Your task to perform on an android device: toggle translation in the chrome app Image 0: 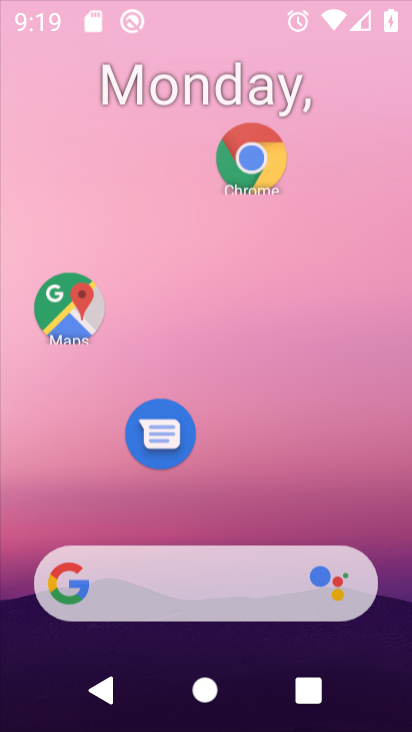
Step 0: press home button
Your task to perform on an android device: toggle translation in the chrome app Image 1: 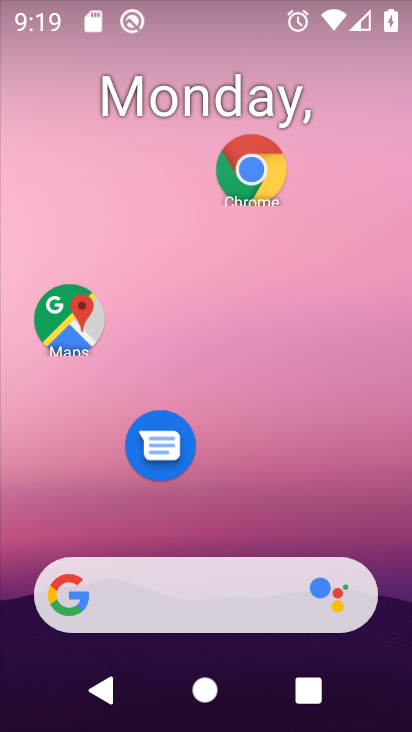
Step 1: click (248, 162)
Your task to perform on an android device: toggle translation in the chrome app Image 2: 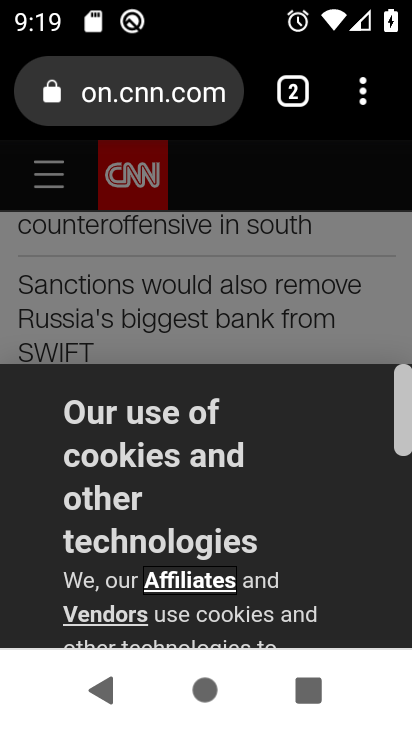
Step 2: click (361, 92)
Your task to perform on an android device: toggle translation in the chrome app Image 3: 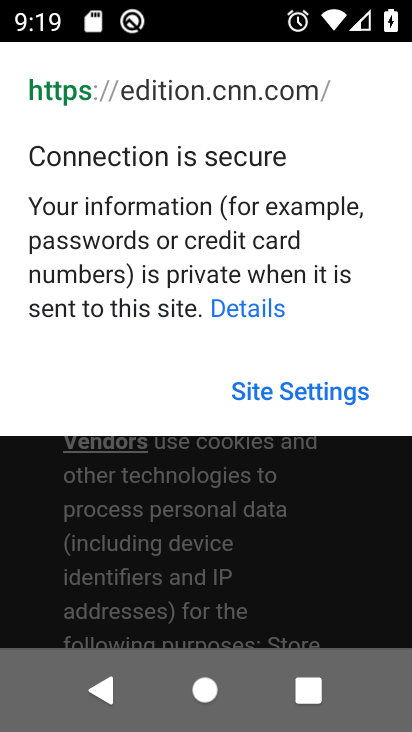
Step 3: click (205, 532)
Your task to perform on an android device: toggle translation in the chrome app Image 4: 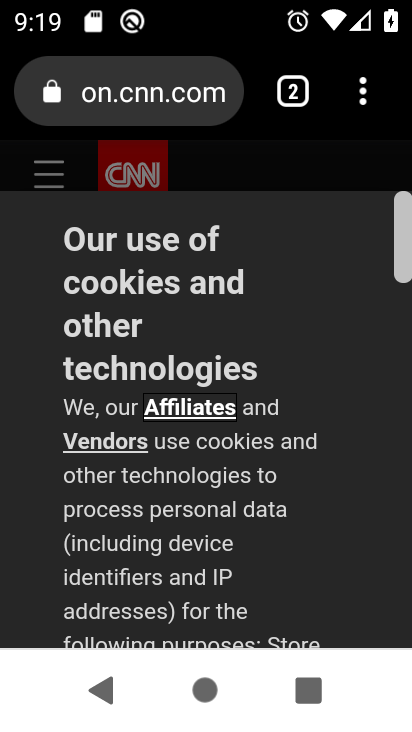
Step 4: drag from (238, 534) to (246, 147)
Your task to perform on an android device: toggle translation in the chrome app Image 5: 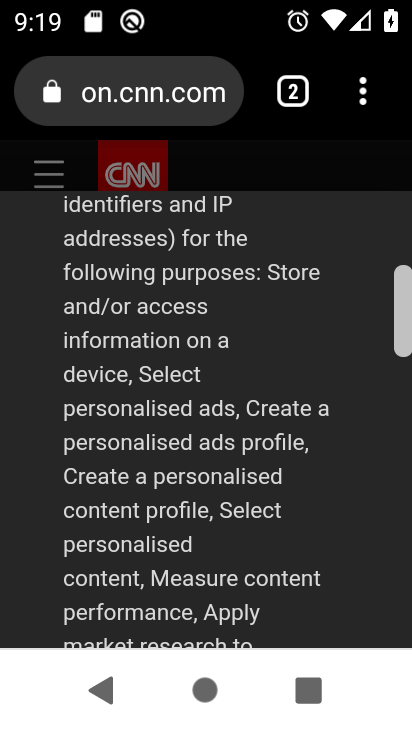
Step 5: drag from (228, 589) to (233, 260)
Your task to perform on an android device: toggle translation in the chrome app Image 6: 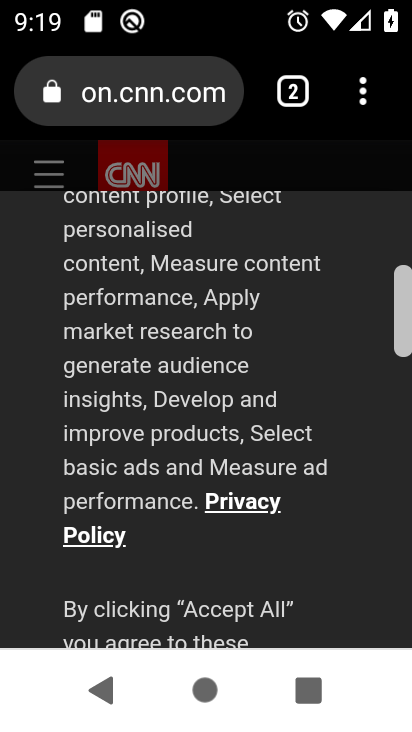
Step 6: drag from (210, 611) to (209, 295)
Your task to perform on an android device: toggle translation in the chrome app Image 7: 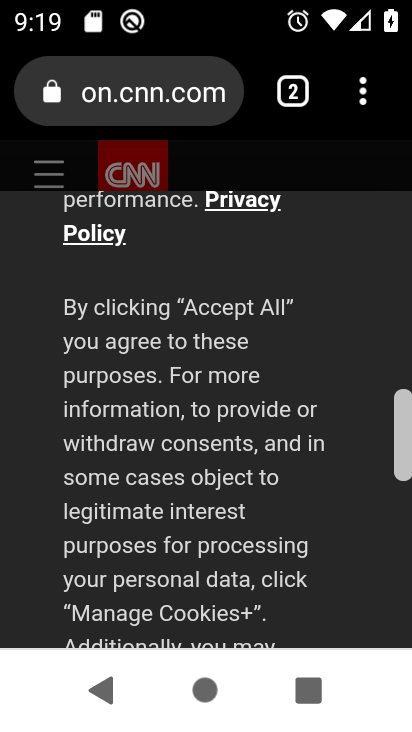
Step 7: drag from (242, 601) to (265, 316)
Your task to perform on an android device: toggle translation in the chrome app Image 8: 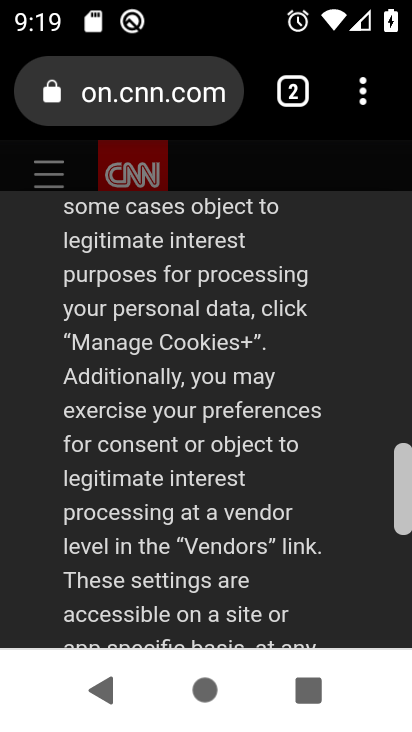
Step 8: drag from (268, 598) to (275, 317)
Your task to perform on an android device: toggle translation in the chrome app Image 9: 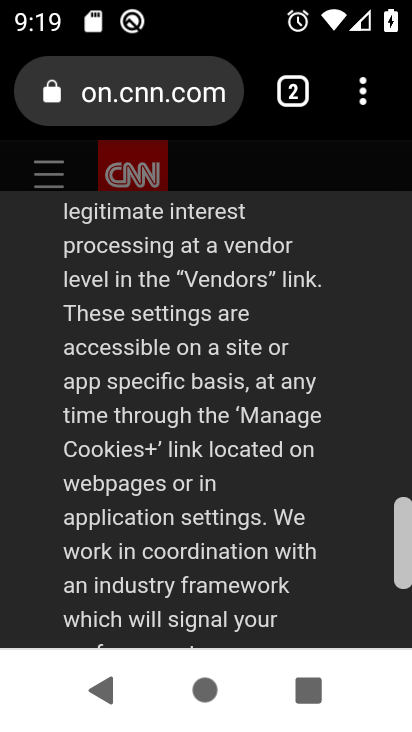
Step 9: drag from (249, 554) to (245, 245)
Your task to perform on an android device: toggle translation in the chrome app Image 10: 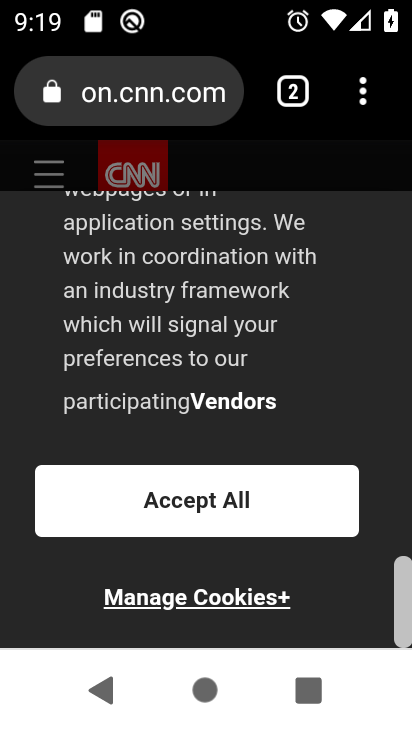
Step 10: click (212, 507)
Your task to perform on an android device: toggle translation in the chrome app Image 11: 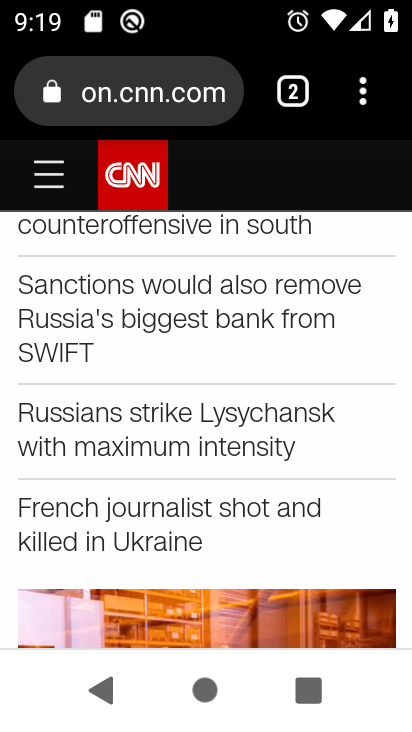
Step 11: click (359, 86)
Your task to perform on an android device: toggle translation in the chrome app Image 12: 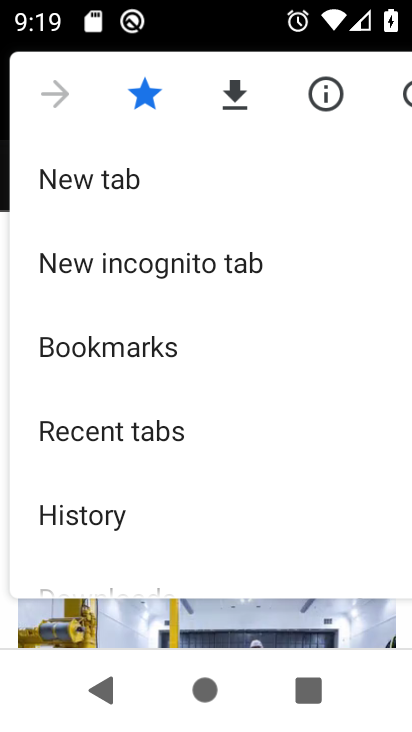
Step 12: drag from (204, 515) to (225, 206)
Your task to perform on an android device: toggle translation in the chrome app Image 13: 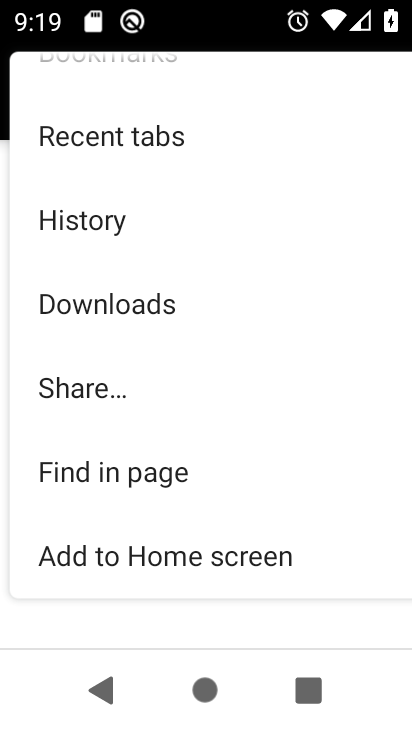
Step 13: drag from (230, 533) to (245, 271)
Your task to perform on an android device: toggle translation in the chrome app Image 14: 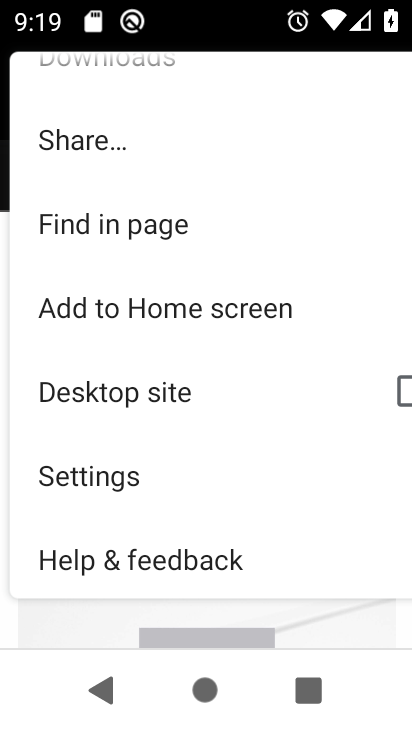
Step 14: click (172, 473)
Your task to perform on an android device: toggle translation in the chrome app Image 15: 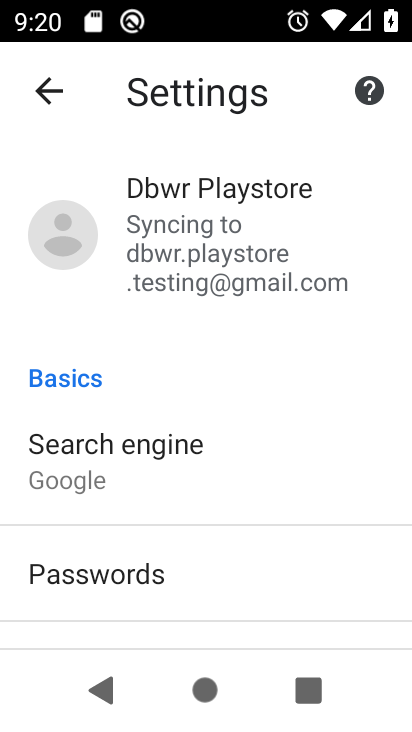
Step 15: drag from (210, 595) to (246, 276)
Your task to perform on an android device: toggle translation in the chrome app Image 16: 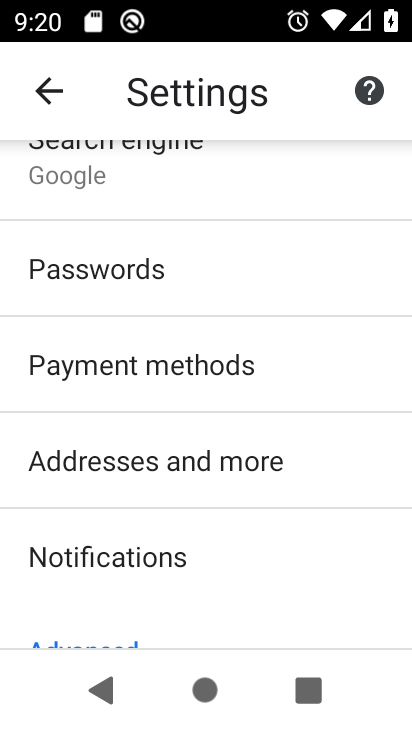
Step 16: drag from (222, 553) to (227, 152)
Your task to perform on an android device: toggle translation in the chrome app Image 17: 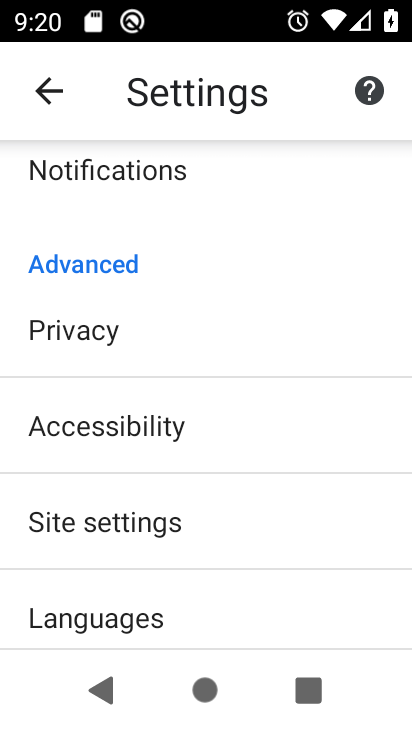
Step 17: click (191, 611)
Your task to perform on an android device: toggle translation in the chrome app Image 18: 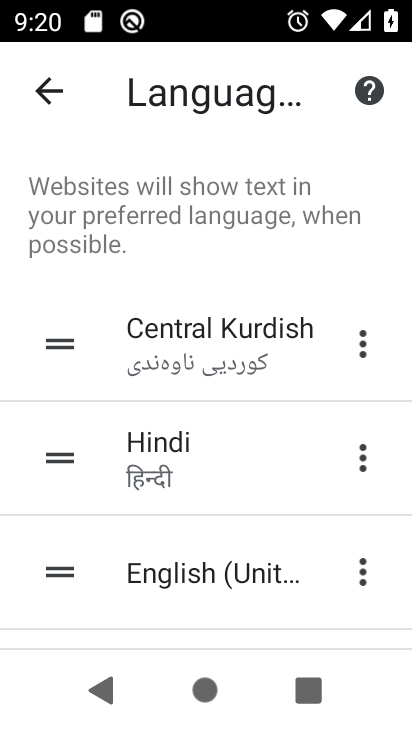
Step 18: drag from (229, 562) to (248, 282)
Your task to perform on an android device: toggle translation in the chrome app Image 19: 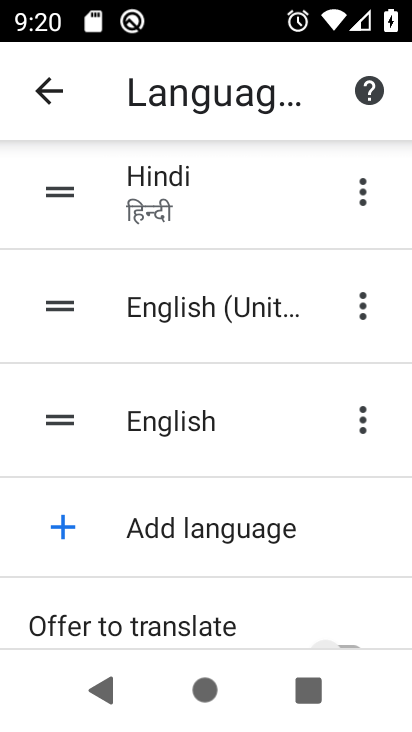
Step 19: drag from (285, 588) to (291, 277)
Your task to perform on an android device: toggle translation in the chrome app Image 20: 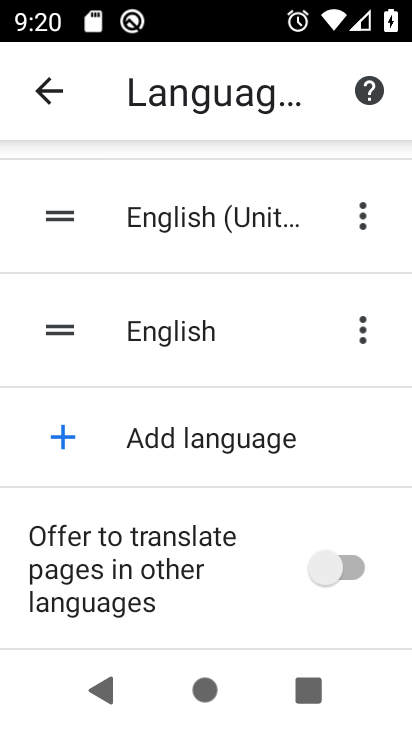
Step 20: click (346, 564)
Your task to perform on an android device: toggle translation in the chrome app Image 21: 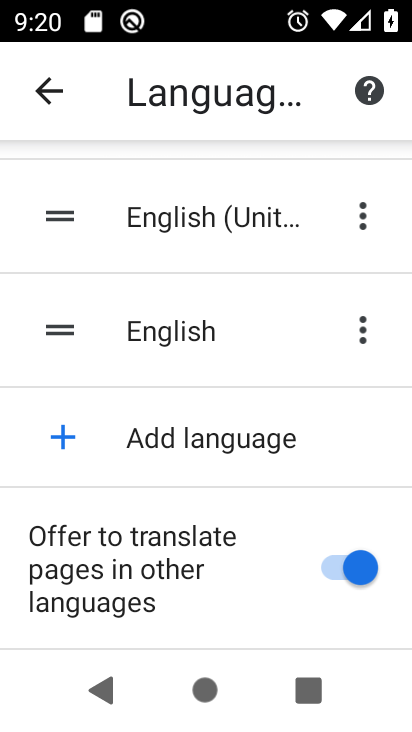
Step 21: task complete